Your task to perform on an android device: Open Chrome and go to the settings page Image 0: 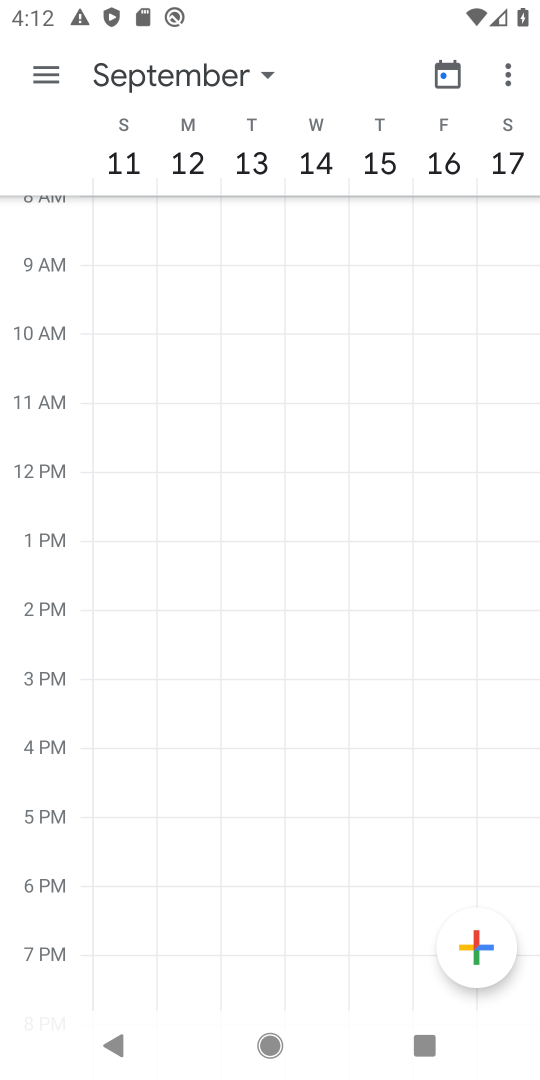
Step 0: press home button
Your task to perform on an android device: Open Chrome and go to the settings page Image 1: 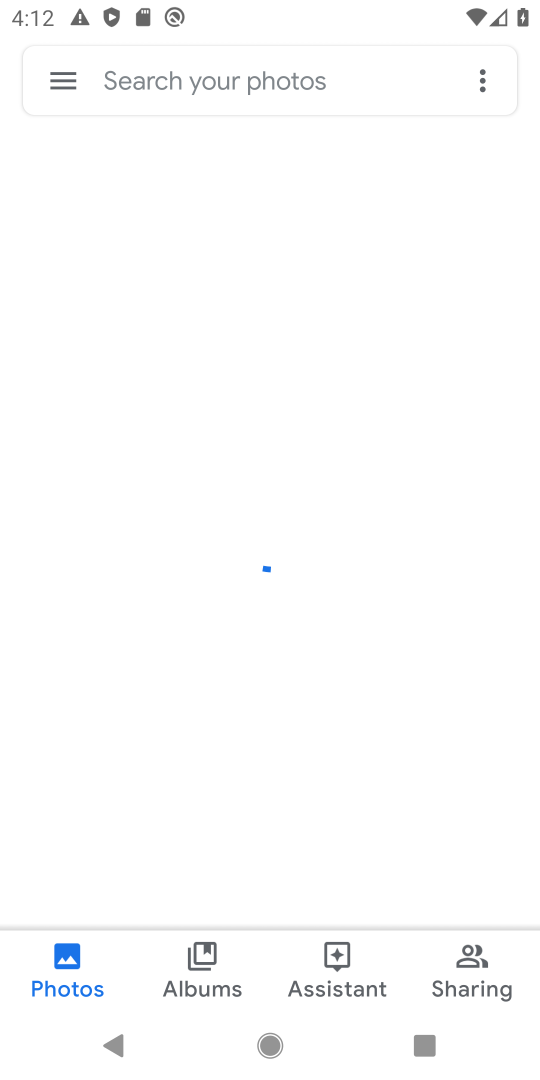
Step 1: press home button
Your task to perform on an android device: Open Chrome and go to the settings page Image 2: 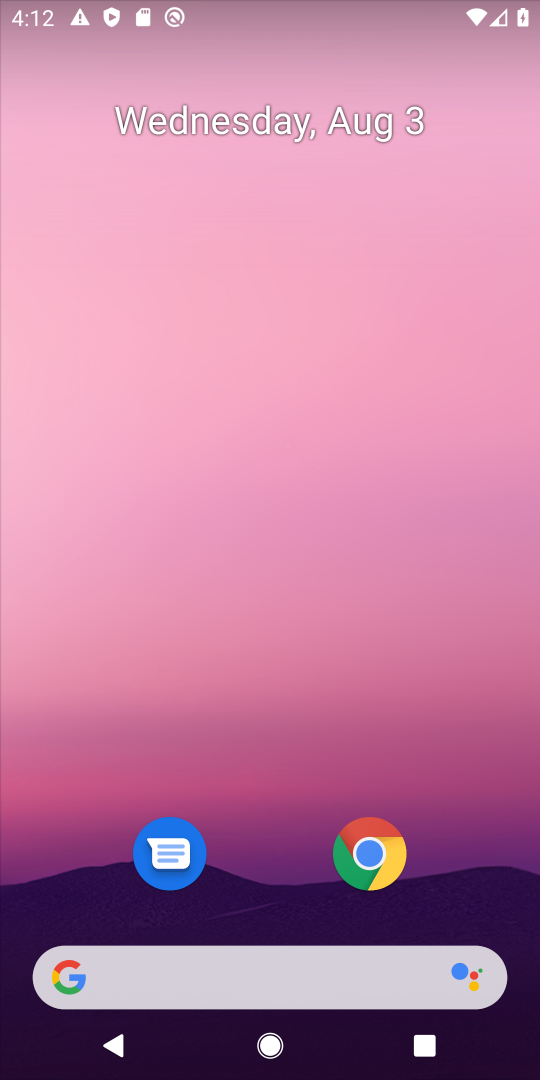
Step 2: press home button
Your task to perform on an android device: Open Chrome and go to the settings page Image 3: 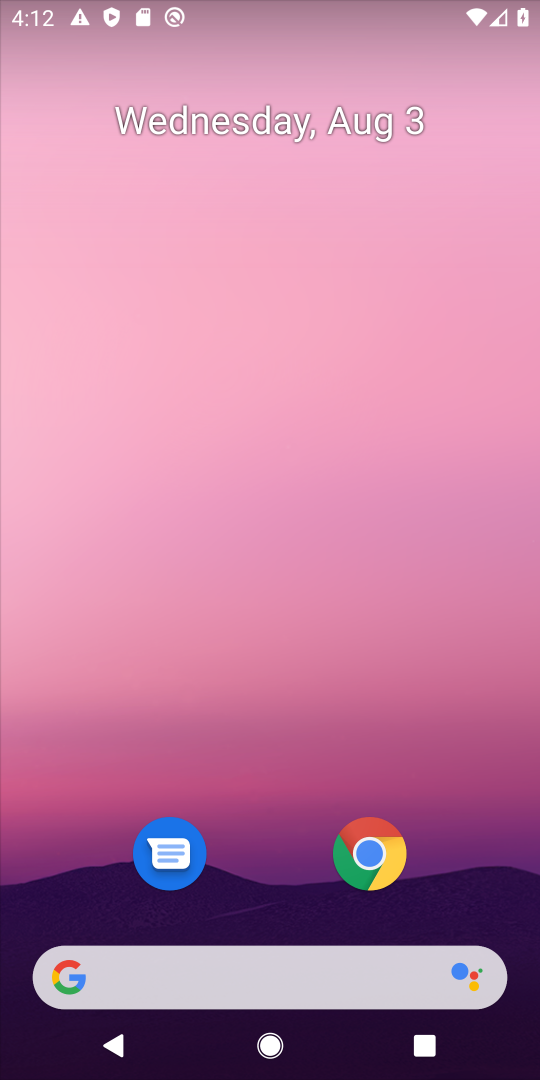
Step 3: click (365, 852)
Your task to perform on an android device: Open Chrome and go to the settings page Image 4: 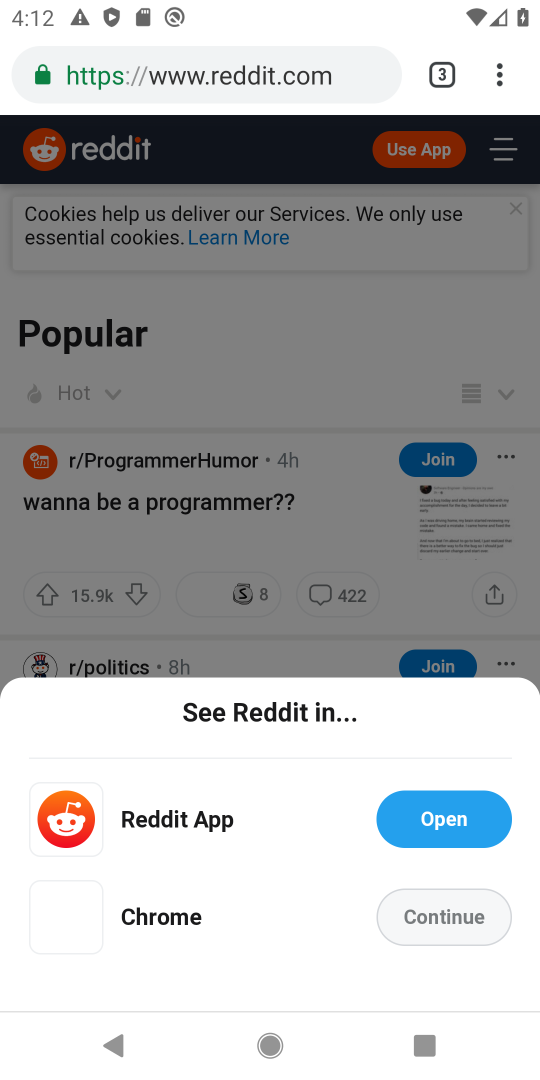
Step 4: click (499, 84)
Your task to perform on an android device: Open Chrome and go to the settings page Image 5: 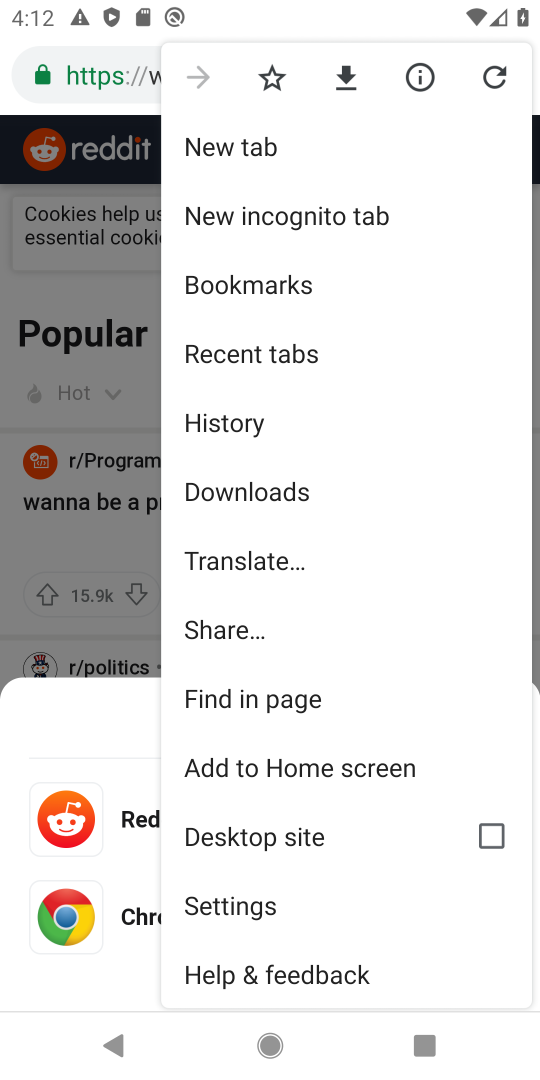
Step 5: click (231, 904)
Your task to perform on an android device: Open Chrome and go to the settings page Image 6: 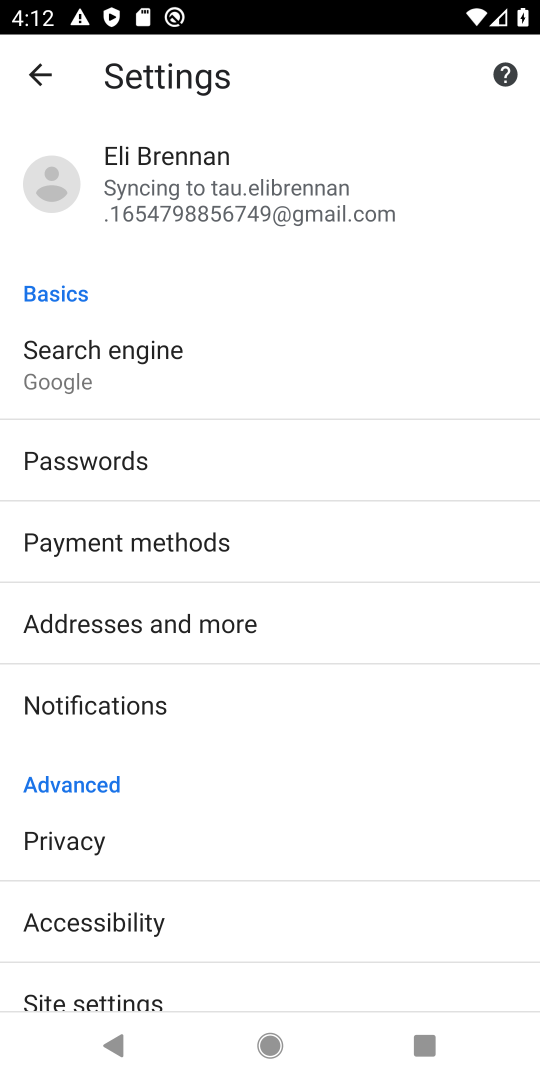
Step 6: drag from (121, 964) to (128, 251)
Your task to perform on an android device: Open Chrome and go to the settings page Image 7: 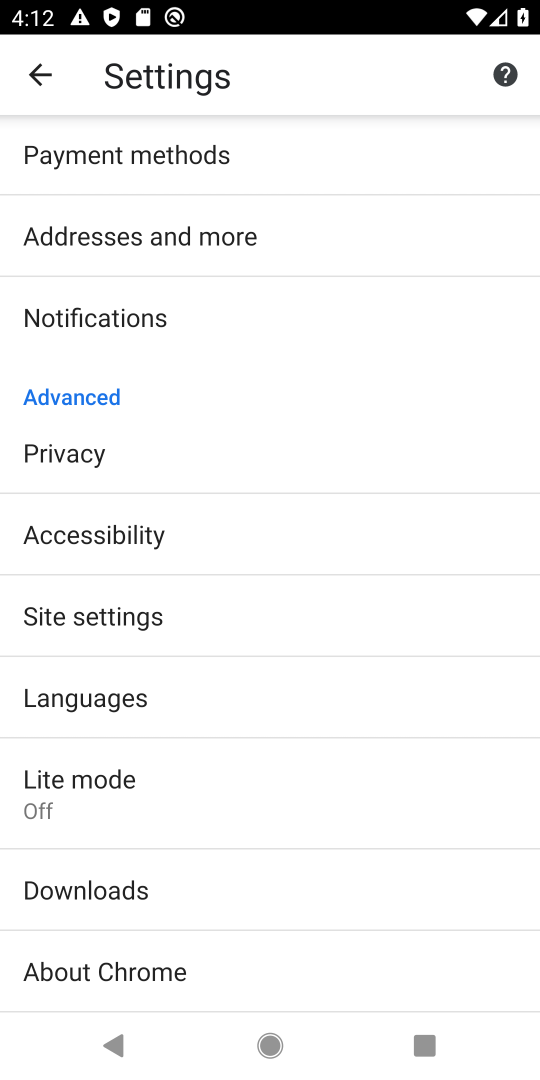
Step 7: click (89, 608)
Your task to perform on an android device: Open Chrome and go to the settings page Image 8: 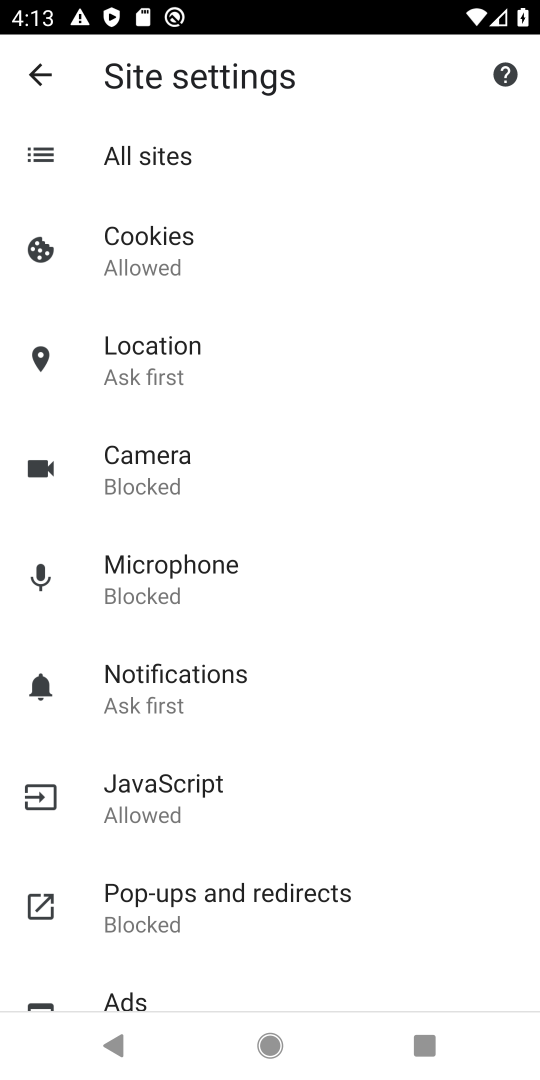
Step 8: task complete